Your task to perform on an android device: open app "Lyft - Rideshare, Bikes, Scooters & Transit" (install if not already installed) and go to login screen Image 0: 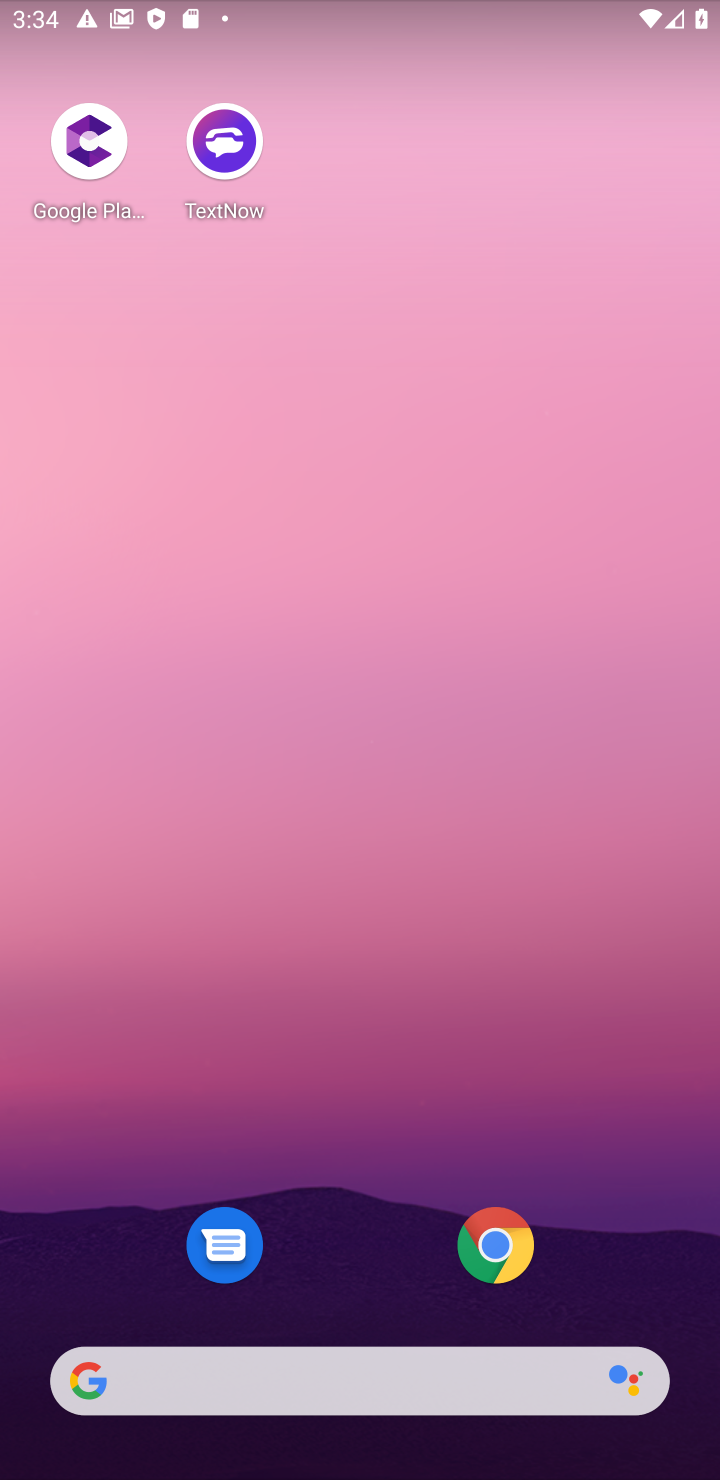
Step 0: press home button
Your task to perform on an android device: open app "Lyft - Rideshare, Bikes, Scooters & Transit" (install if not already installed) and go to login screen Image 1: 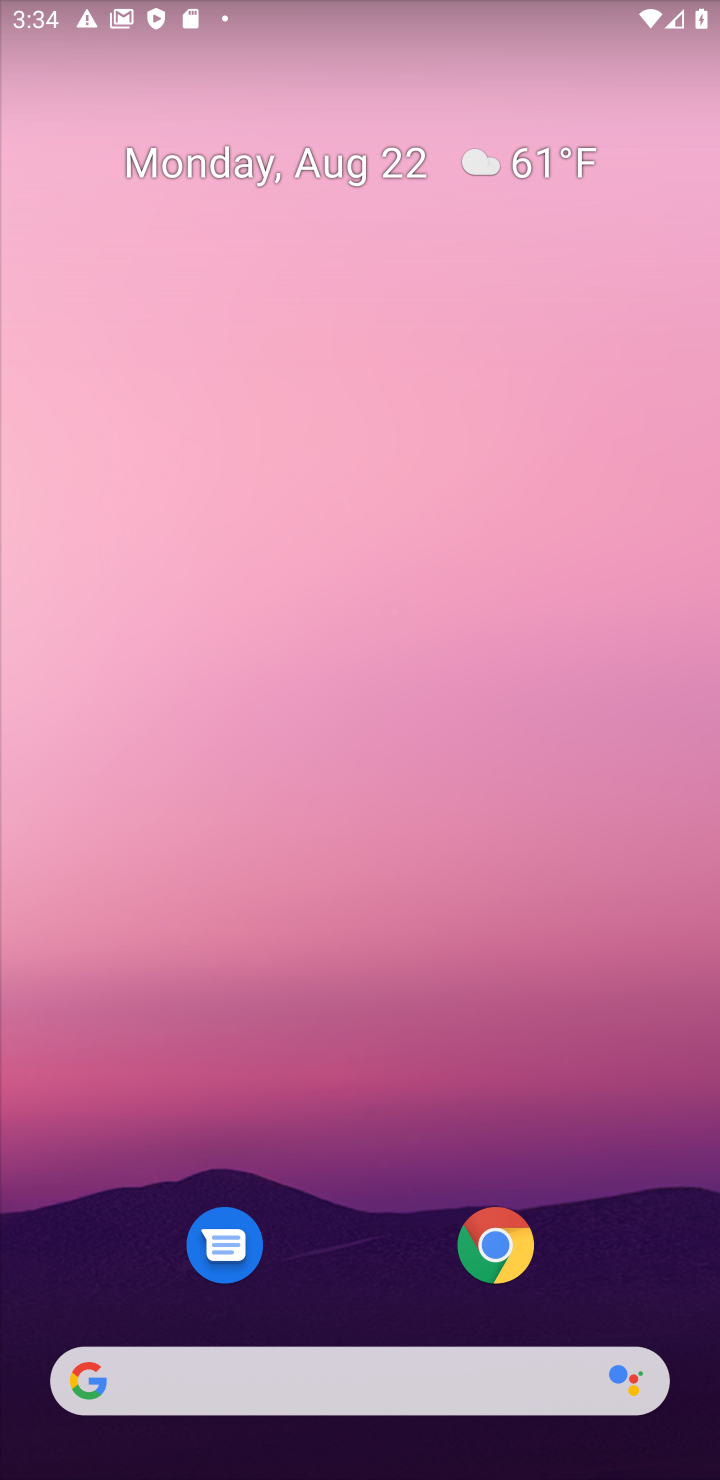
Step 1: drag from (605, 1214) to (598, 115)
Your task to perform on an android device: open app "Lyft - Rideshare, Bikes, Scooters & Transit" (install if not already installed) and go to login screen Image 2: 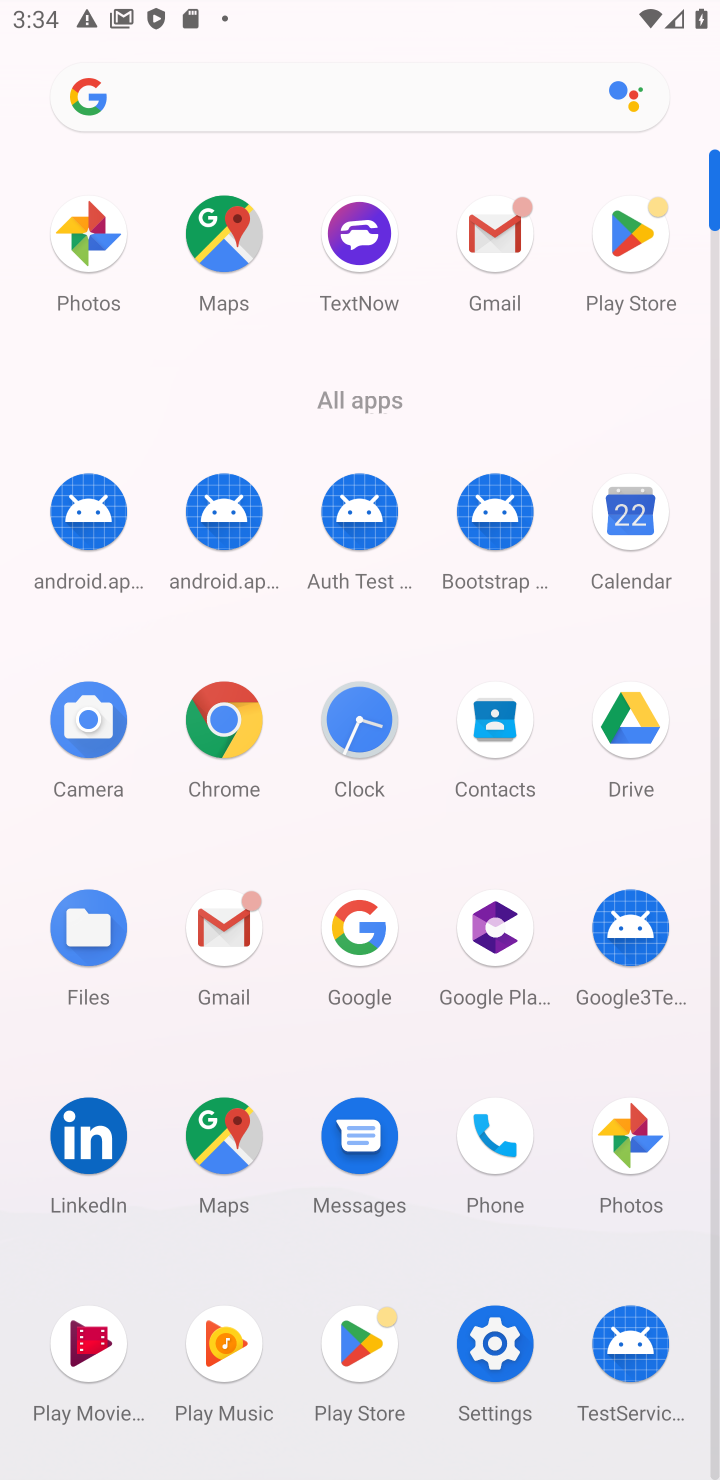
Step 2: click (628, 233)
Your task to perform on an android device: open app "Lyft - Rideshare, Bikes, Scooters & Transit" (install if not already installed) and go to login screen Image 3: 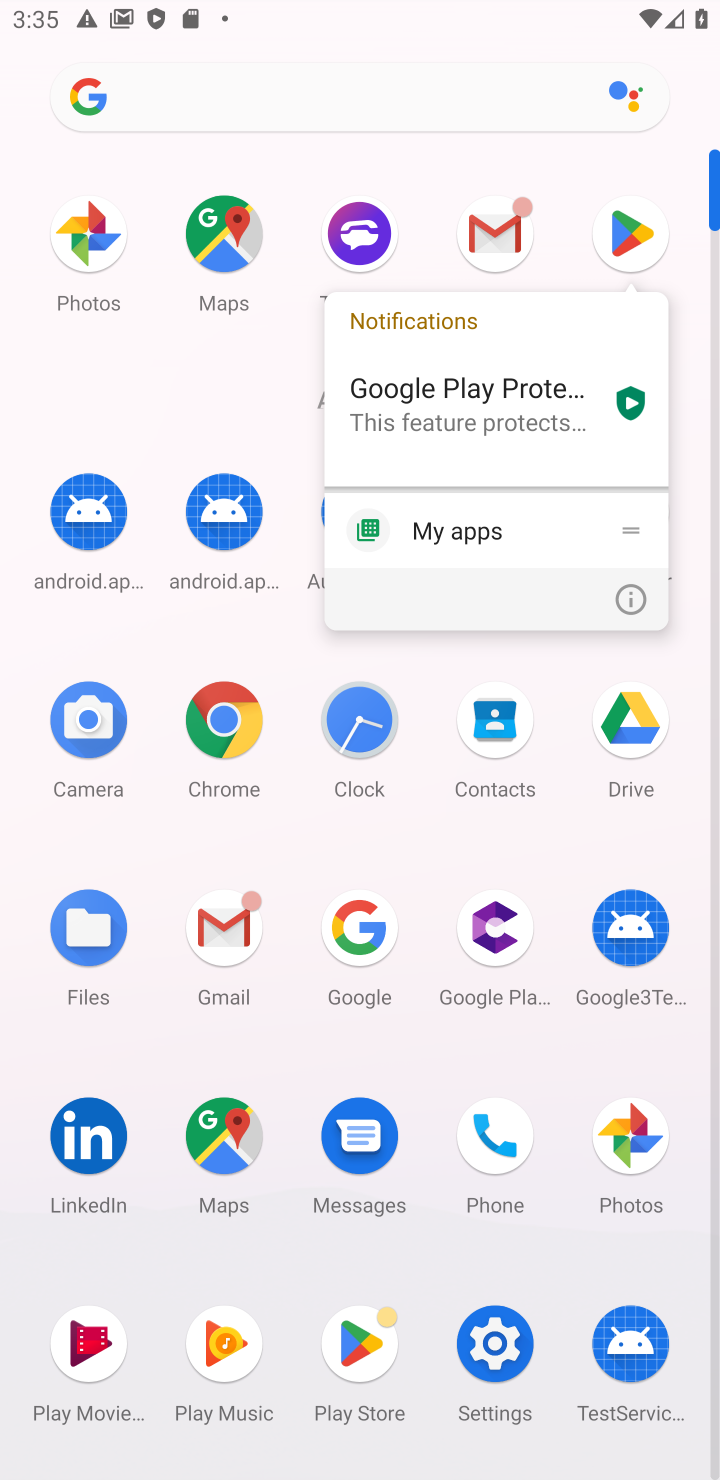
Step 3: click (628, 233)
Your task to perform on an android device: open app "Lyft - Rideshare, Bikes, Scooters & Transit" (install if not already installed) and go to login screen Image 4: 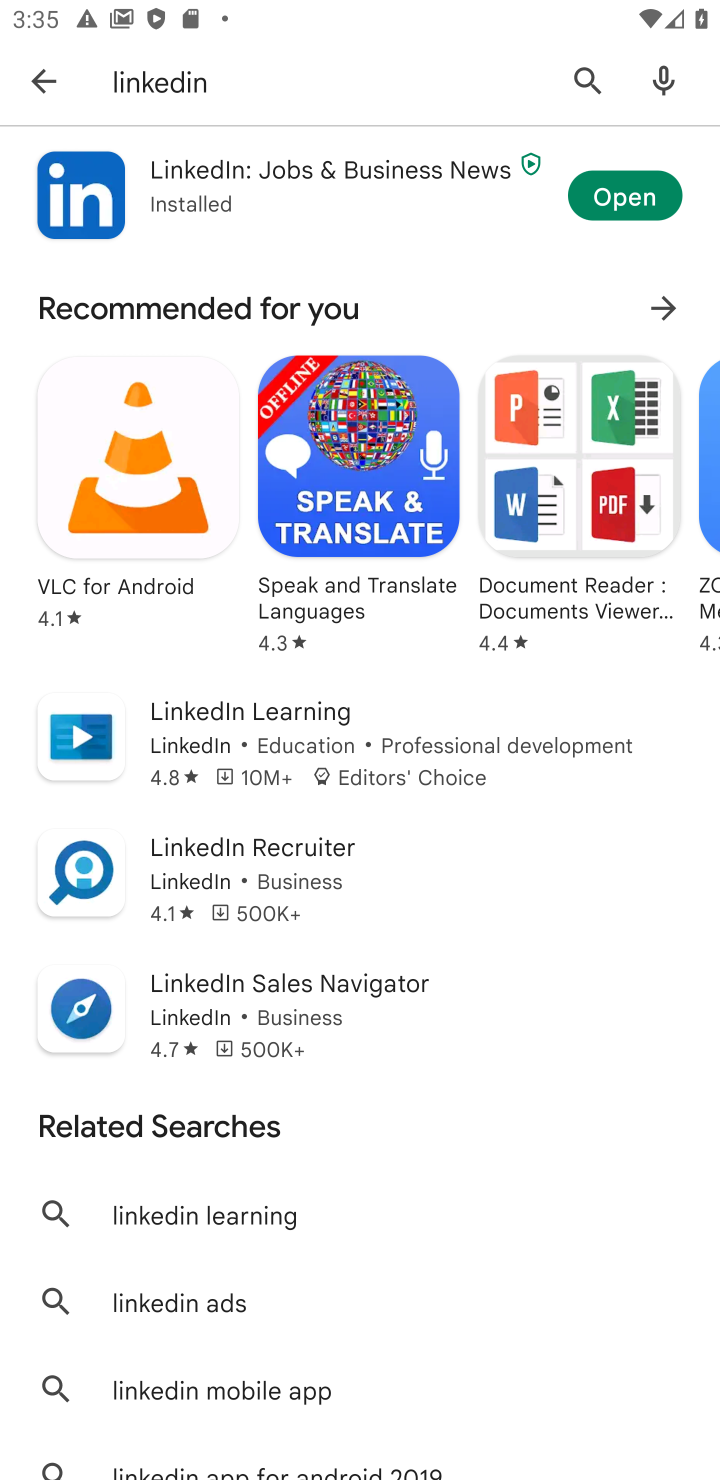
Step 4: press back button
Your task to perform on an android device: open app "Lyft - Rideshare, Bikes, Scooters & Transit" (install if not already installed) and go to login screen Image 5: 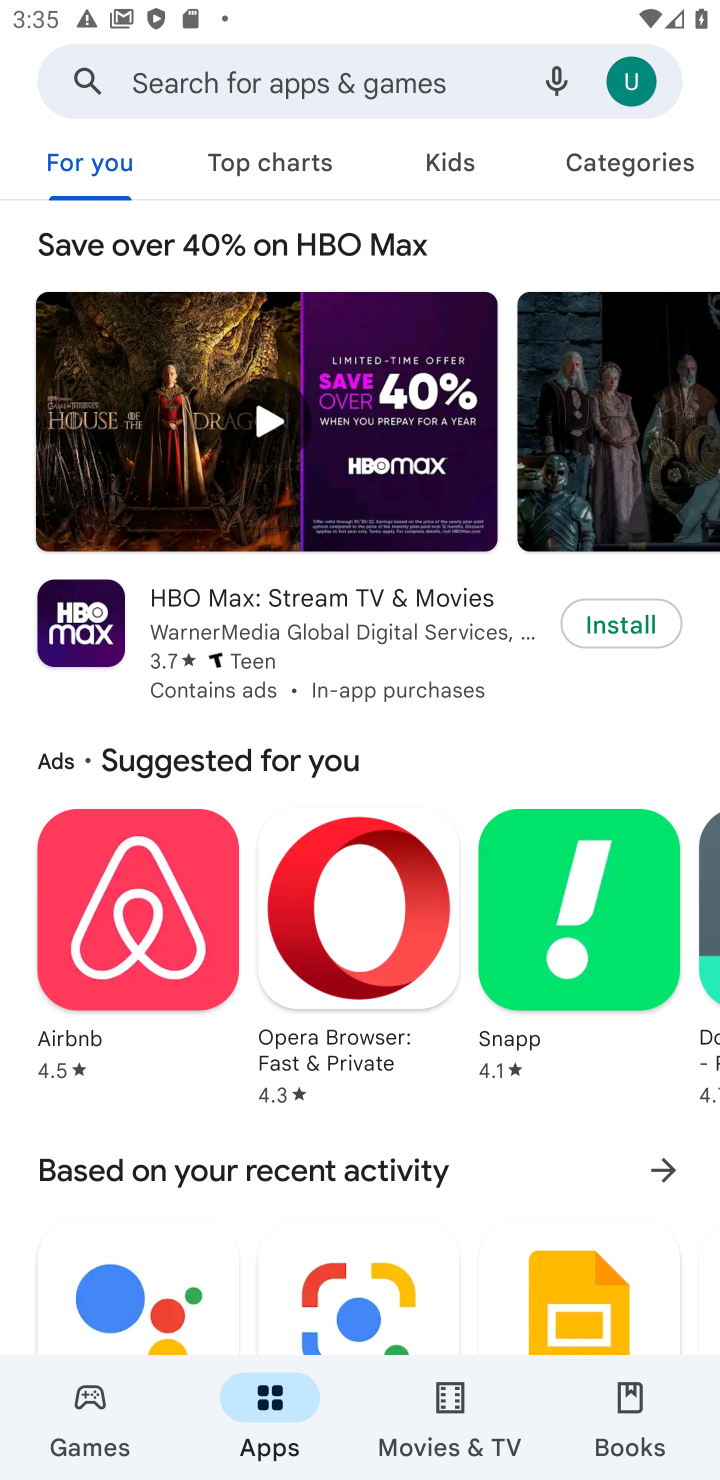
Step 5: click (361, 68)
Your task to perform on an android device: open app "Lyft - Rideshare, Bikes, Scooters & Transit" (install if not already installed) and go to login screen Image 6: 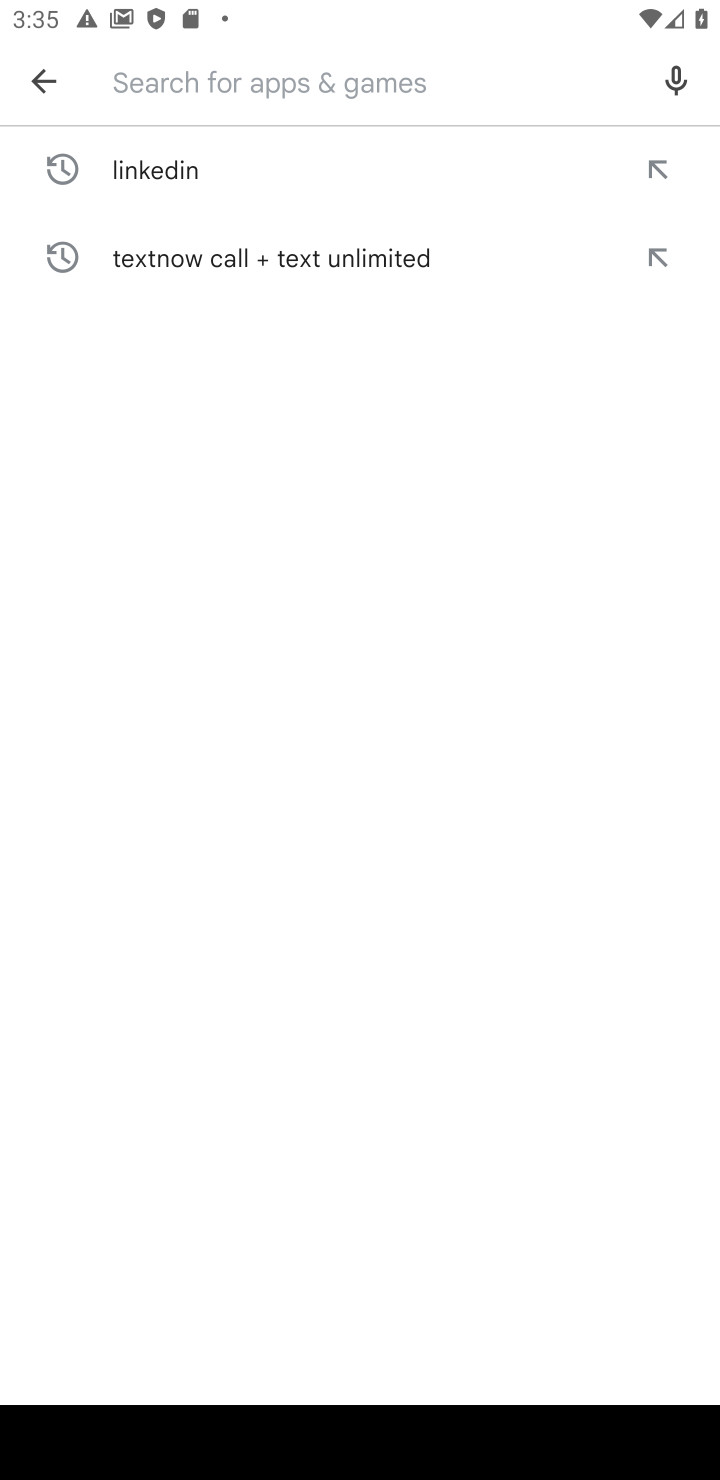
Step 6: type "Lyft - Rideshare, Bikes, Scooters & Transit"
Your task to perform on an android device: open app "Lyft - Rideshare, Bikes, Scooters & Transit" (install if not already installed) and go to login screen Image 7: 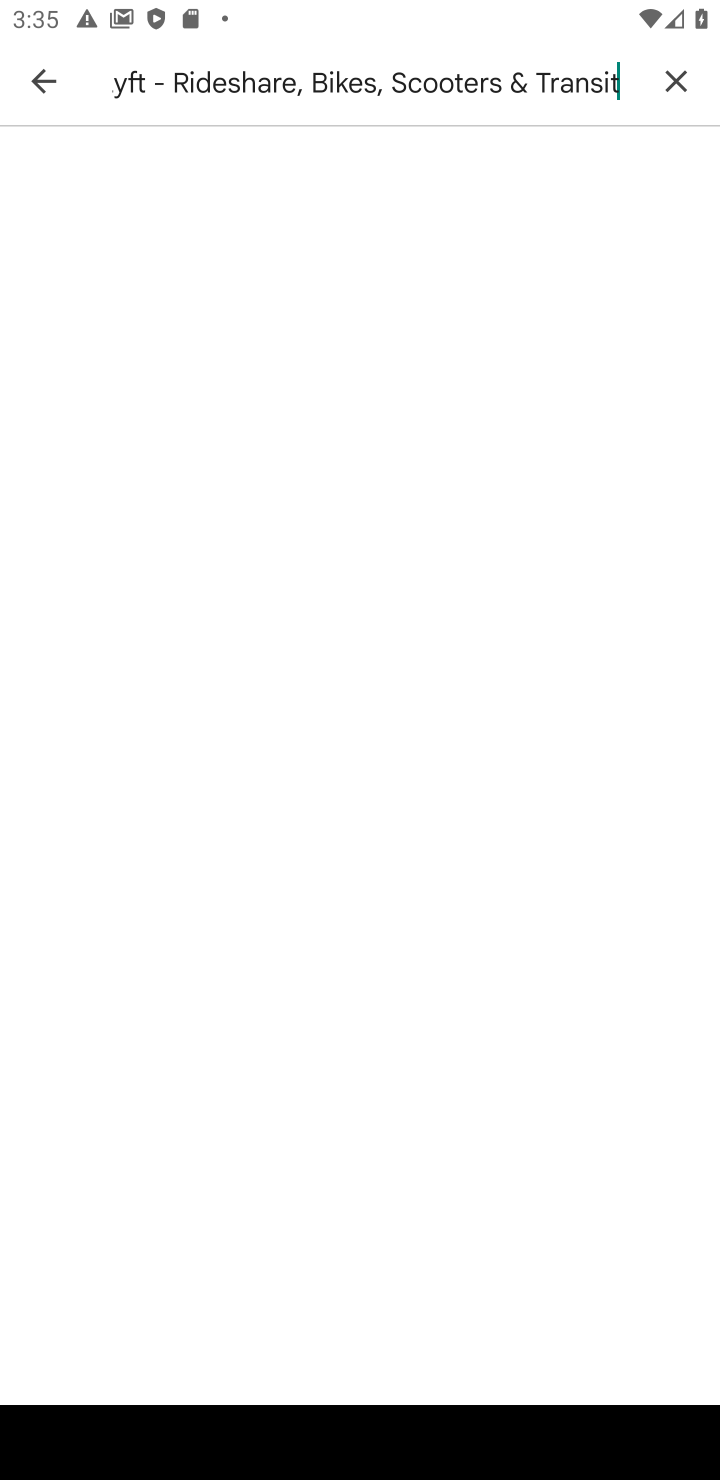
Step 7: click (237, 100)
Your task to perform on an android device: open app "Lyft - Rideshare, Bikes, Scooters & Transit" (install if not already installed) and go to login screen Image 8: 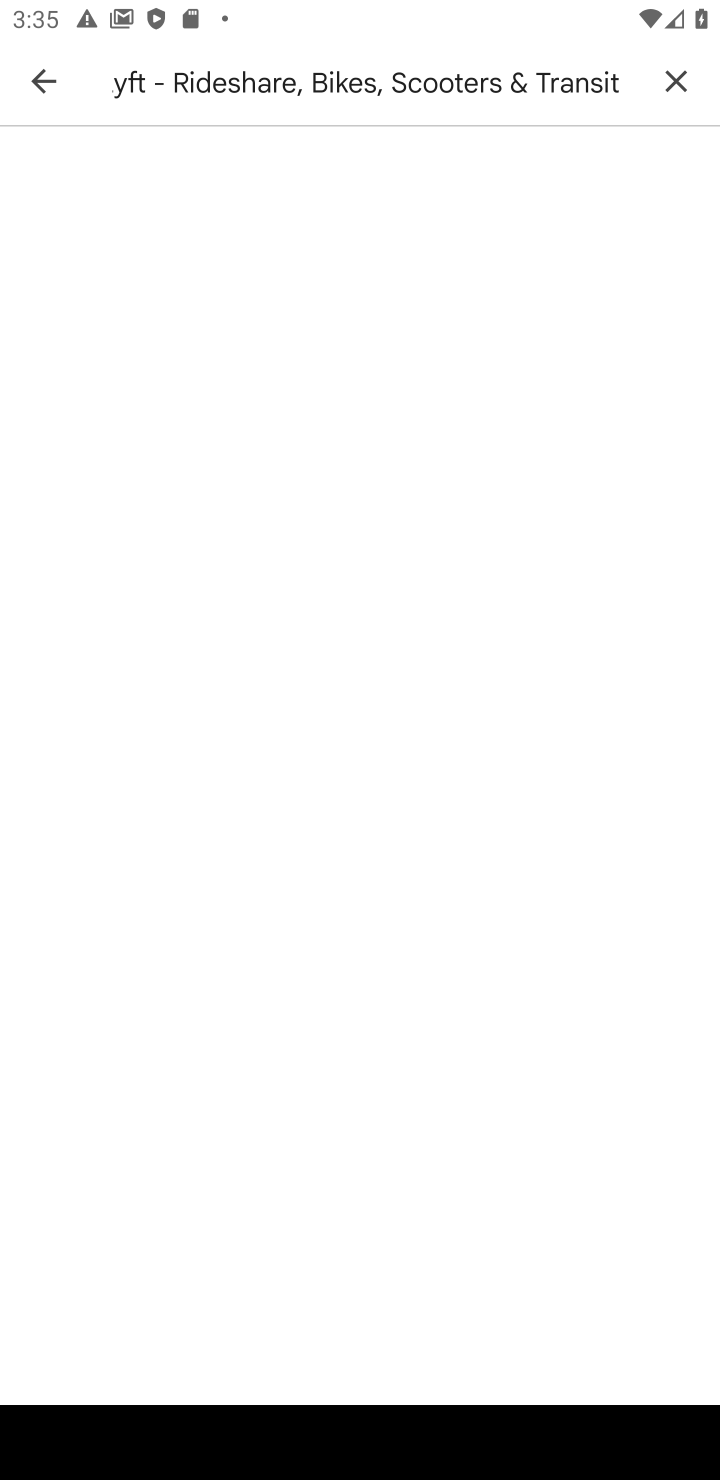
Step 8: task complete